Your task to perform on an android device: Open calendar and show me the first week of next month Image 0: 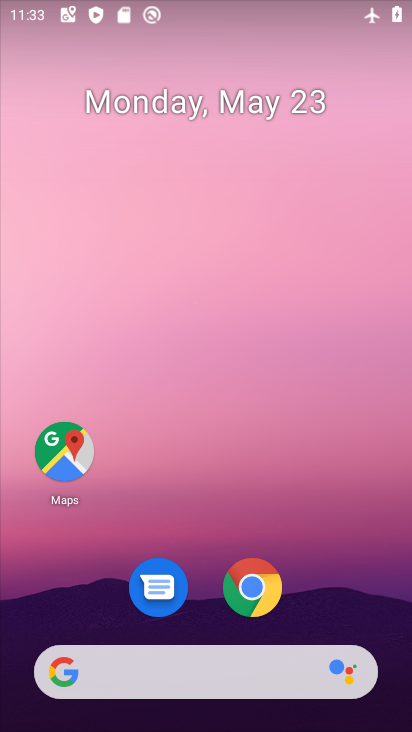
Step 0: drag from (389, 630) to (365, 166)
Your task to perform on an android device: Open calendar and show me the first week of next month Image 1: 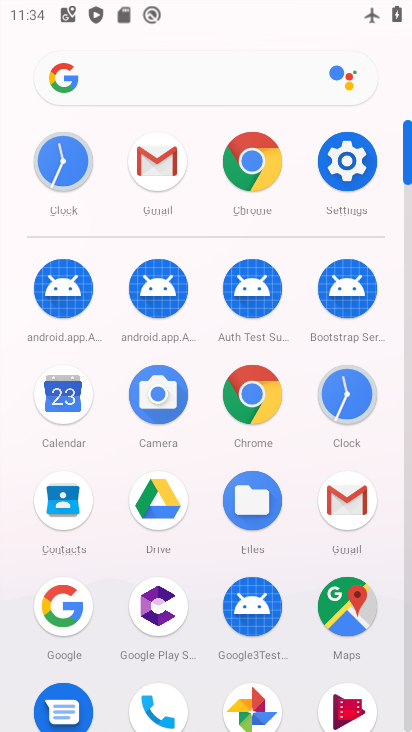
Step 1: click (68, 411)
Your task to perform on an android device: Open calendar and show me the first week of next month Image 2: 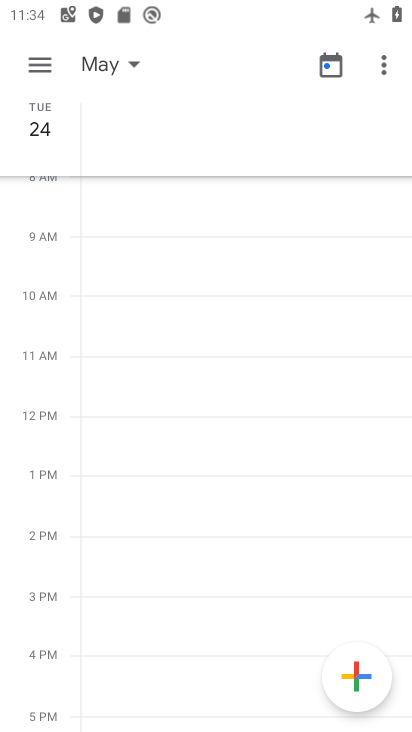
Step 2: click (108, 62)
Your task to perform on an android device: Open calendar and show me the first week of next month Image 3: 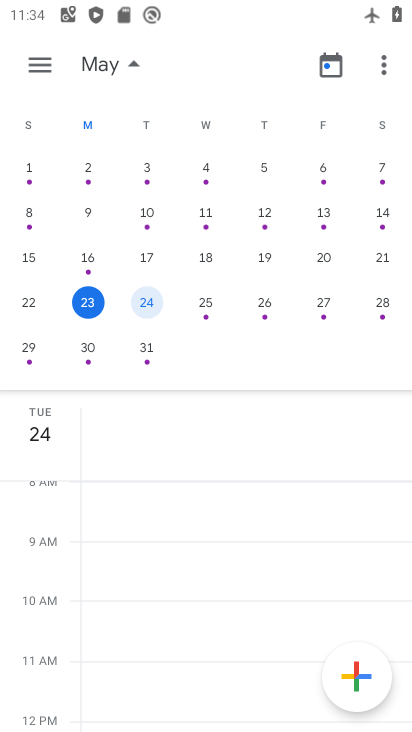
Step 3: click (45, 65)
Your task to perform on an android device: Open calendar and show me the first week of next month Image 4: 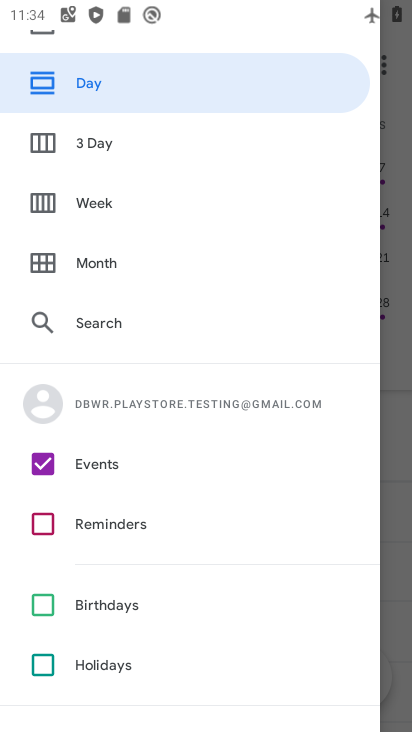
Step 4: click (89, 201)
Your task to perform on an android device: Open calendar and show me the first week of next month Image 5: 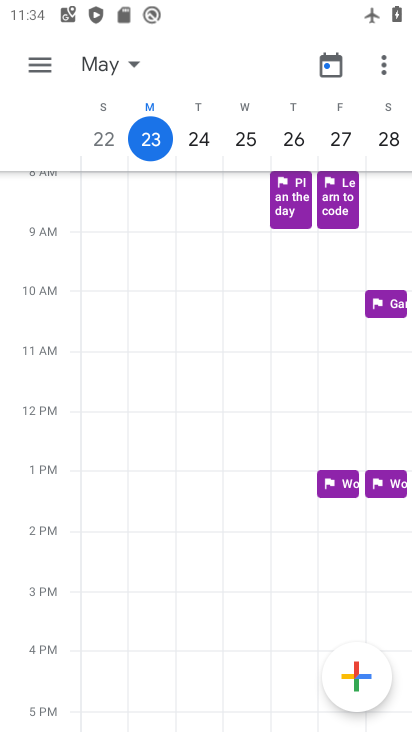
Step 5: click (130, 74)
Your task to perform on an android device: Open calendar and show me the first week of next month Image 6: 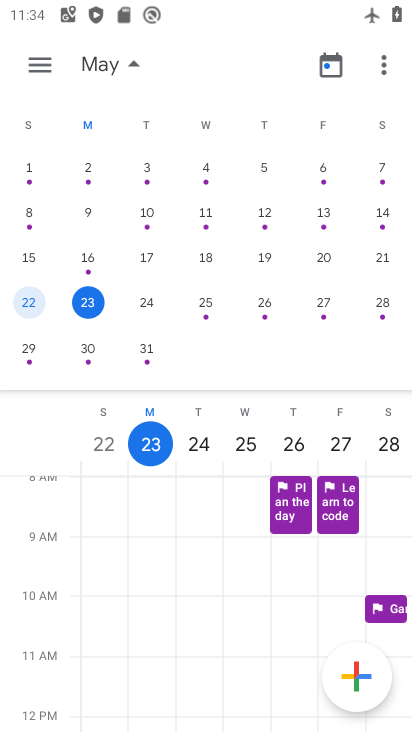
Step 6: drag from (398, 279) to (48, 248)
Your task to perform on an android device: Open calendar and show me the first week of next month Image 7: 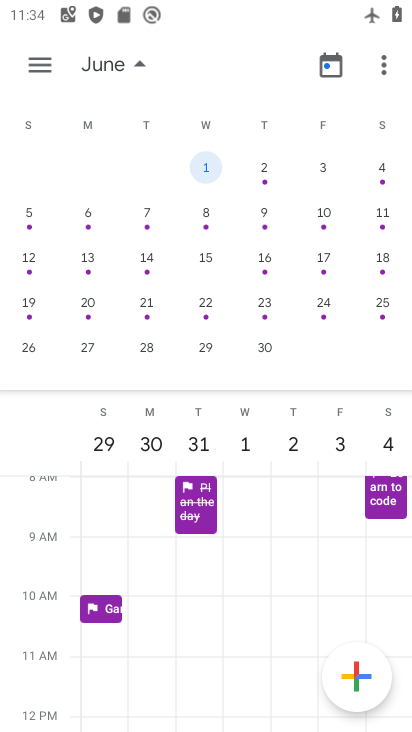
Step 7: click (208, 155)
Your task to perform on an android device: Open calendar and show me the first week of next month Image 8: 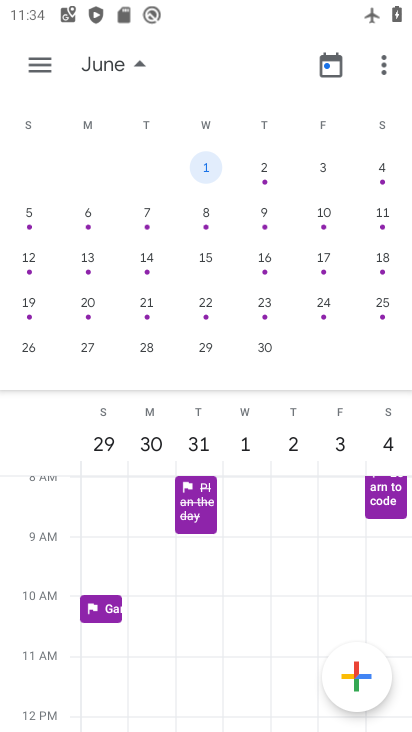
Step 8: task complete